Your task to perform on an android device: toggle translation in the chrome app Image 0: 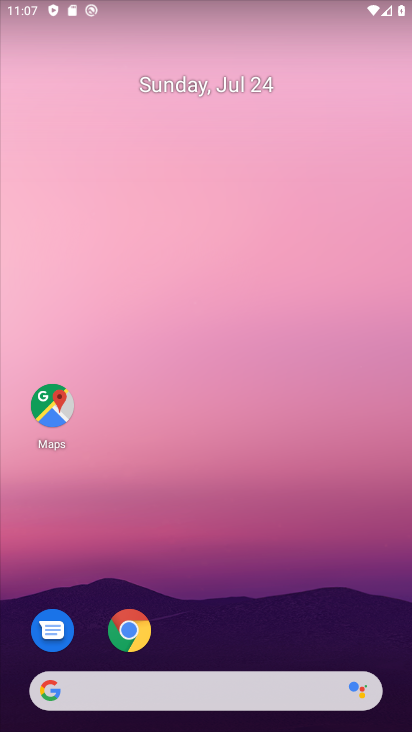
Step 0: click (130, 632)
Your task to perform on an android device: toggle translation in the chrome app Image 1: 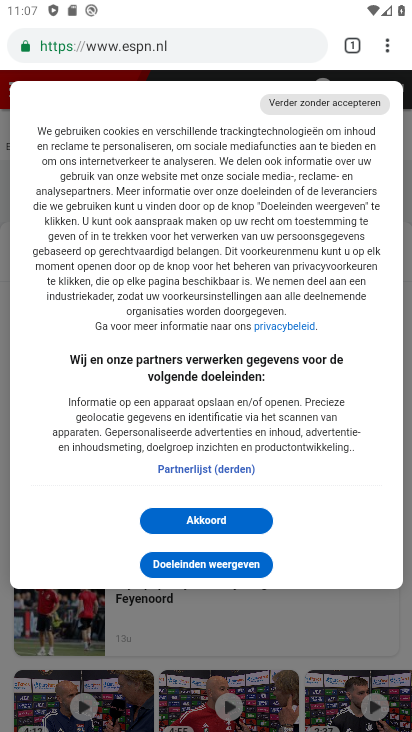
Step 1: click (385, 41)
Your task to perform on an android device: toggle translation in the chrome app Image 2: 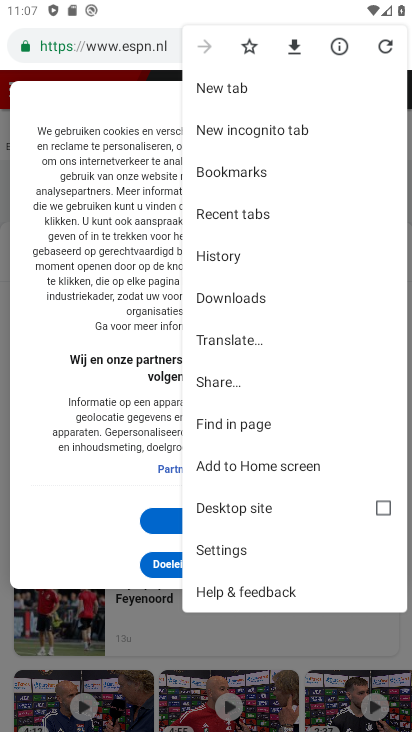
Step 2: click (229, 556)
Your task to perform on an android device: toggle translation in the chrome app Image 3: 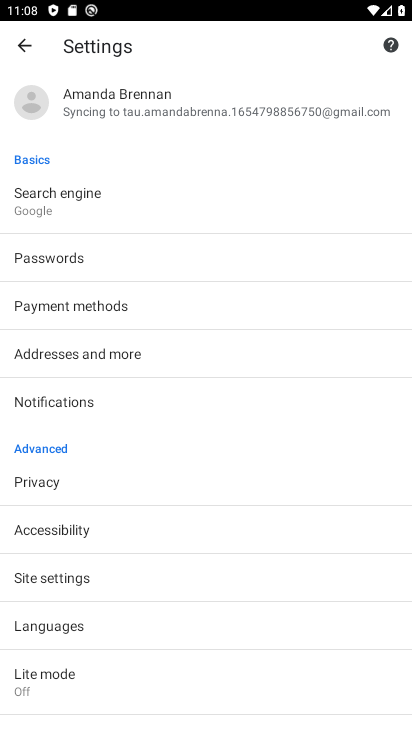
Step 3: click (45, 619)
Your task to perform on an android device: toggle translation in the chrome app Image 4: 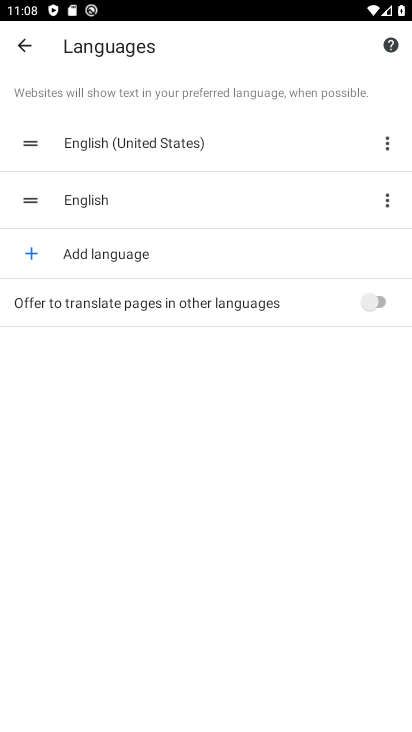
Step 4: click (362, 295)
Your task to perform on an android device: toggle translation in the chrome app Image 5: 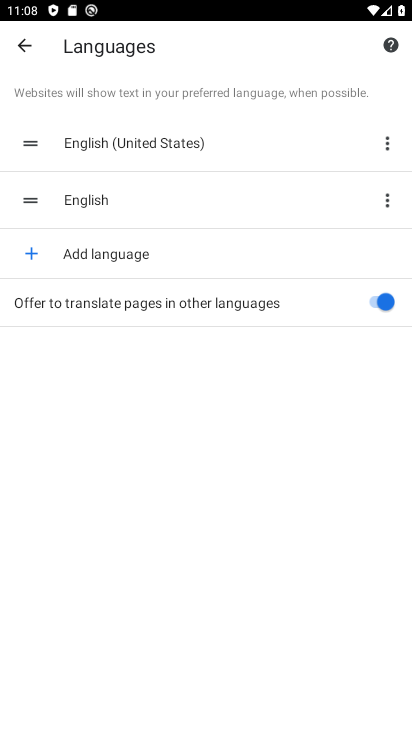
Step 5: task complete